Your task to perform on an android device: change text size in settings app Image 0: 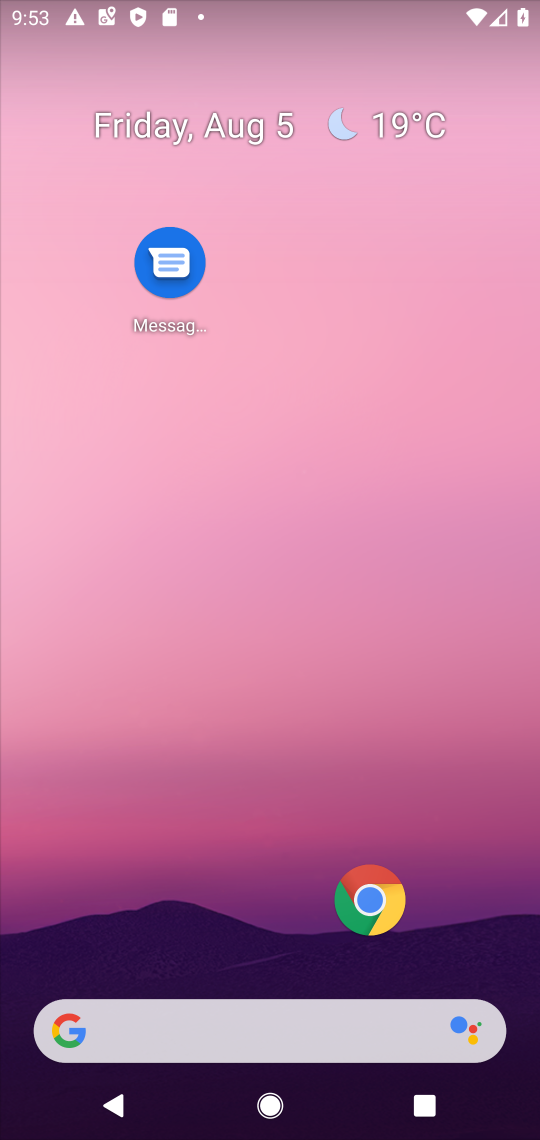
Step 0: drag from (191, 931) to (168, 0)
Your task to perform on an android device: change text size in settings app Image 1: 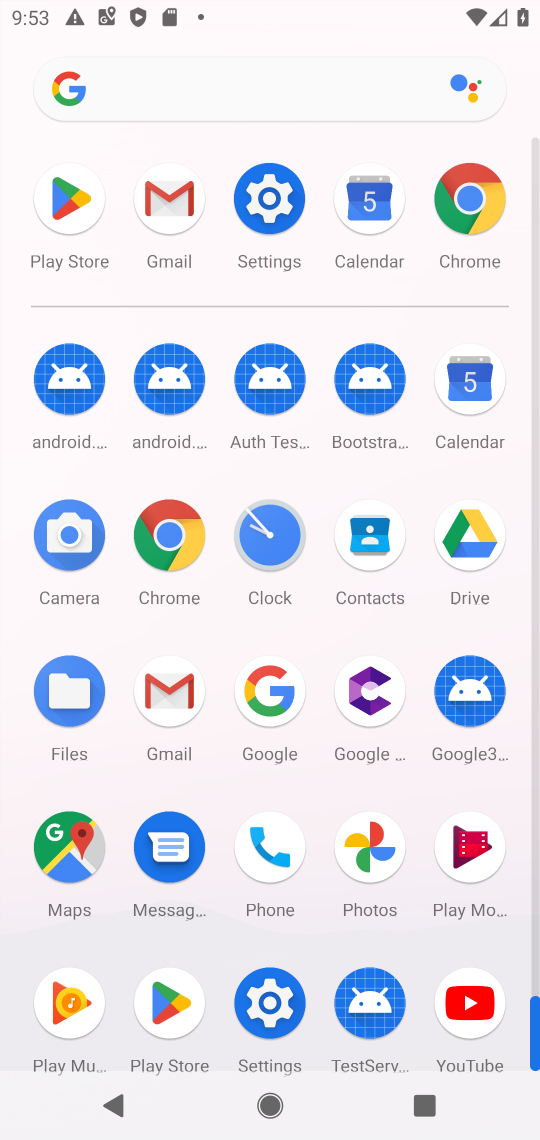
Step 1: click (268, 993)
Your task to perform on an android device: change text size in settings app Image 2: 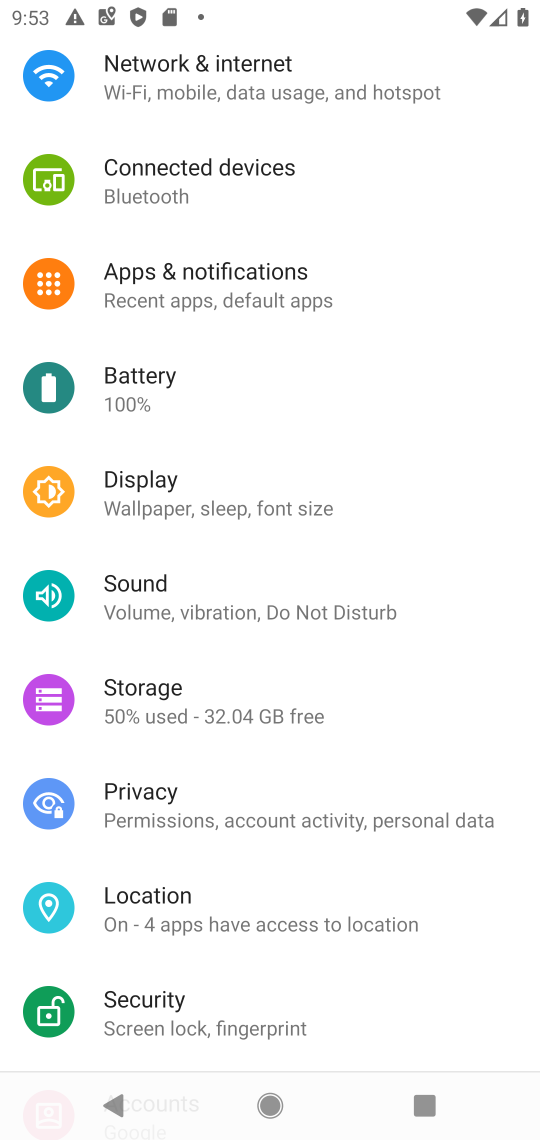
Step 2: click (161, 520)
Your task to perform on an android device: change text size in settings app Image 3: 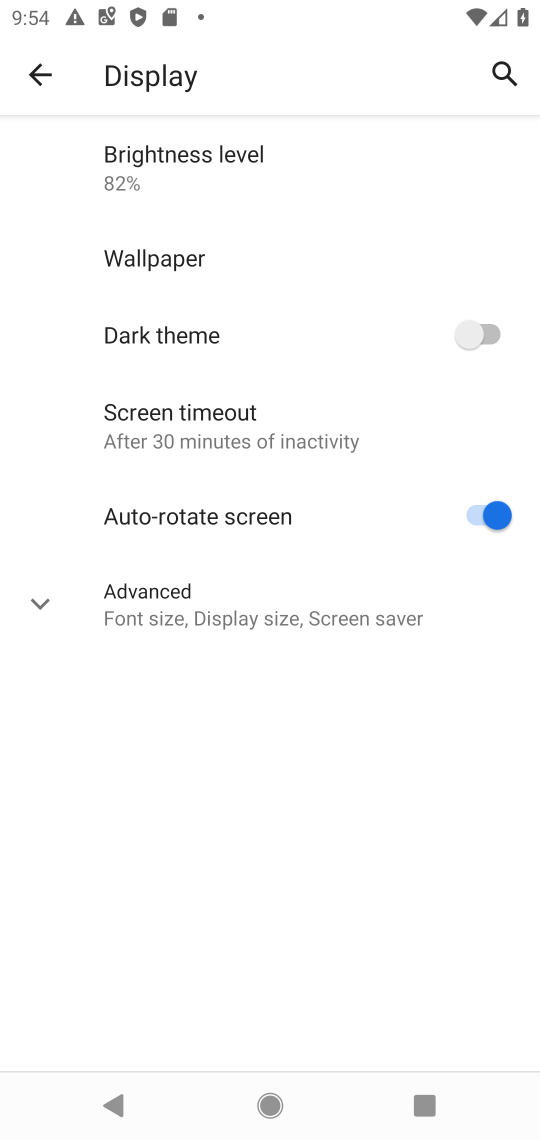
Step 3: click (141, 611)
Your task to perform on an android device: change text size in settings app Image 4: 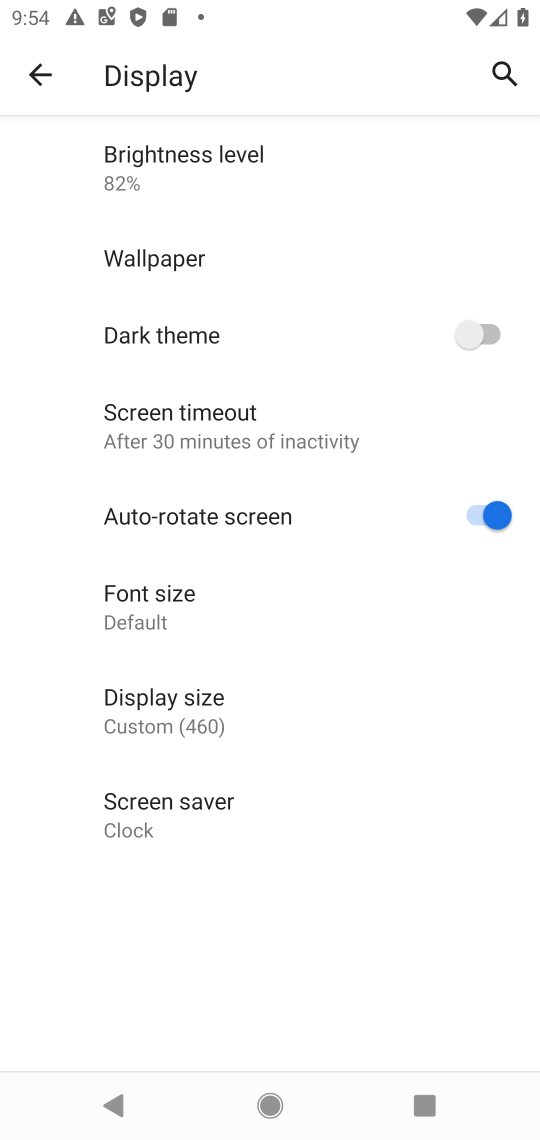
Step 4: click (124, 596)
Your task to perform on an android device: change text size in settings app Image 5: 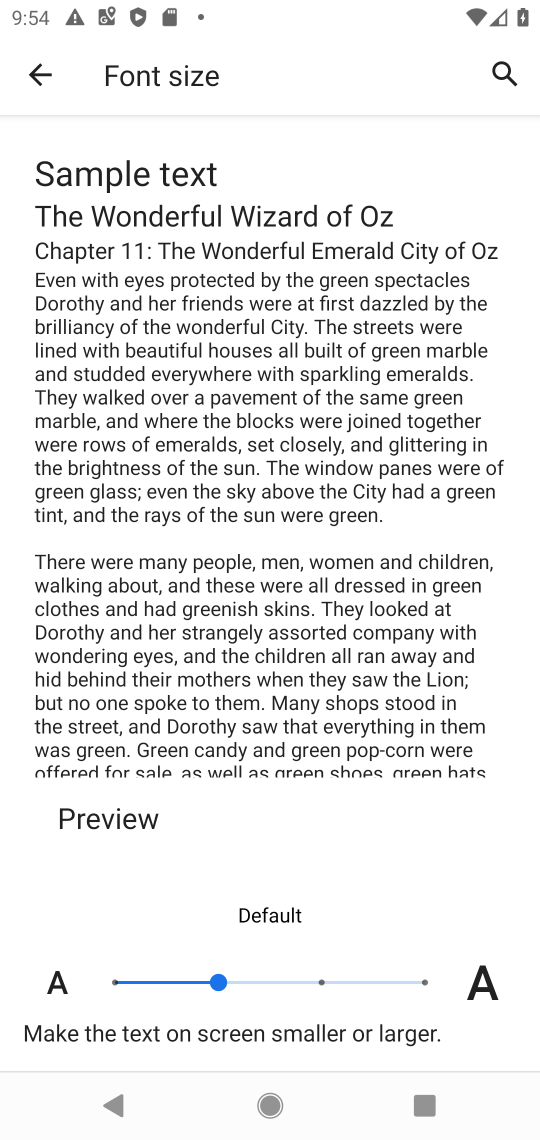
Step 5: task complete